Your task to perform on an android device: clear history in the chrome app Image 0: 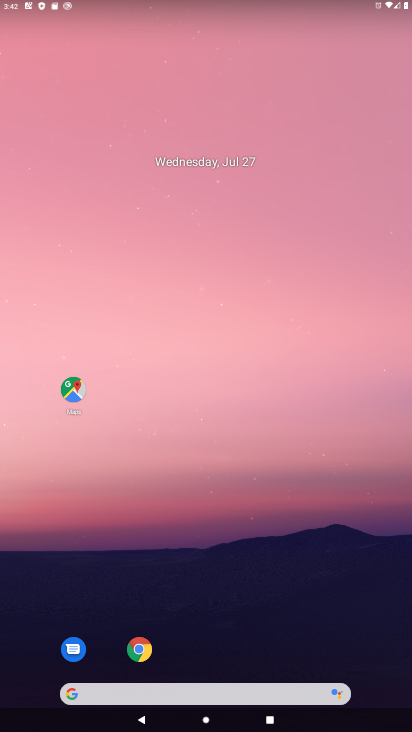
Step 0: click (138, 647)
Your task to perform on an android device: clear history in the chrome app Image 1: 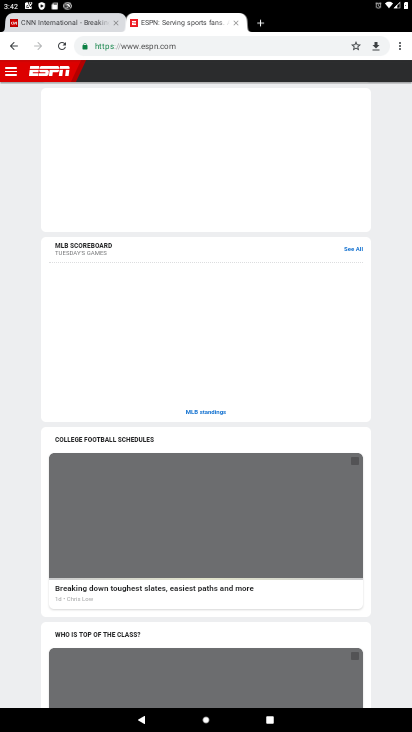
Step 1: click (403, 48)
Your task to perform on an android device: clear history in the chrome app Image 2: 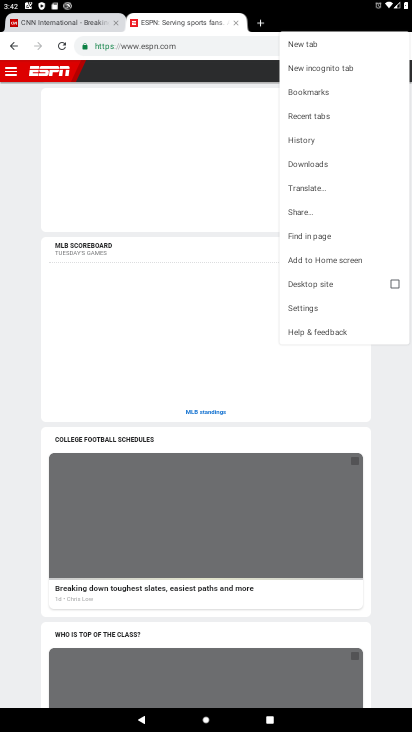
Step 2: click (300, 136)
Your task to perform on an android device: clear history in the chrome app Image 3: 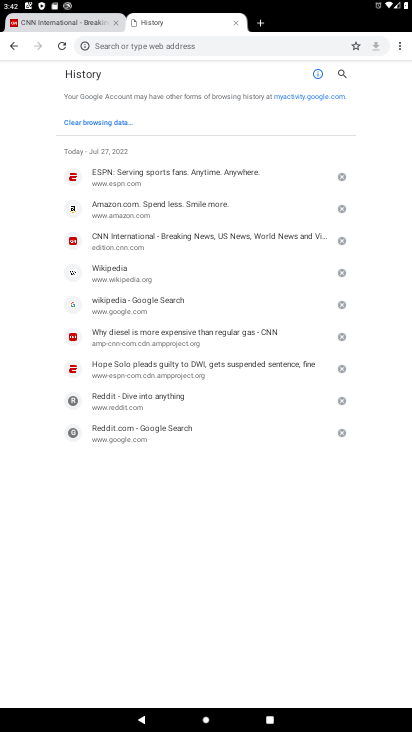
Step 3: click (90, 120)
Your task to perform on an android device: clear history in the chrome app Image 4: 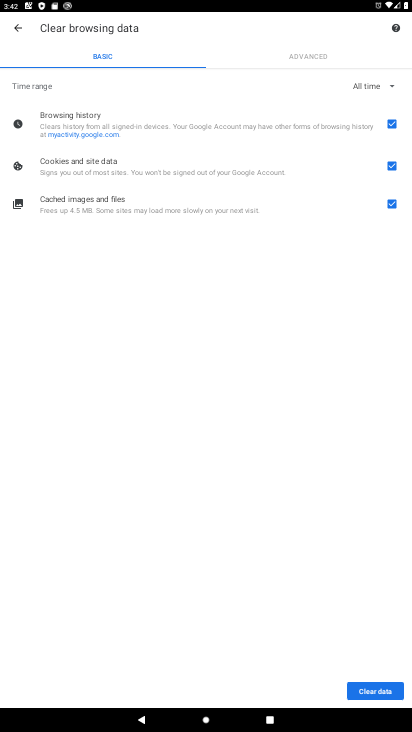
Step 4: click (392, 165)
Your task to perform on an android device: clear history in the chrome app Image 5: 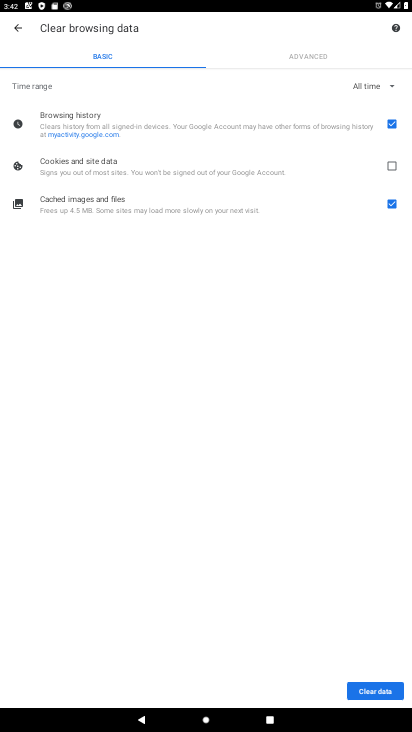
Step 5: click (390, 204)
Your task to perform on an android device: clear history in the chrome app Image 6: 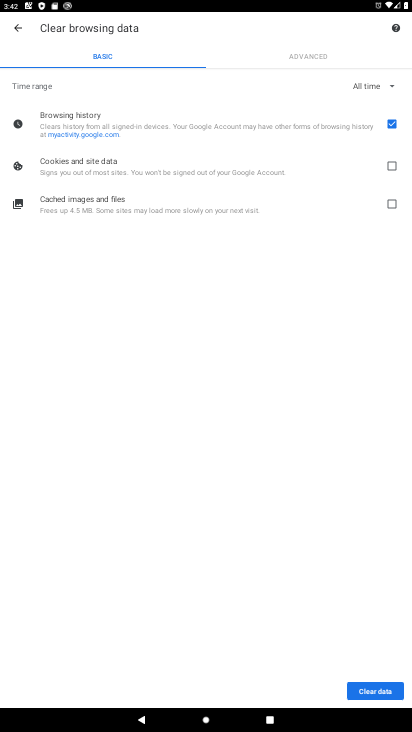
Step 6: click (376, 691)
Your task to perform on an android device: clear history in the chrome app Image 7: 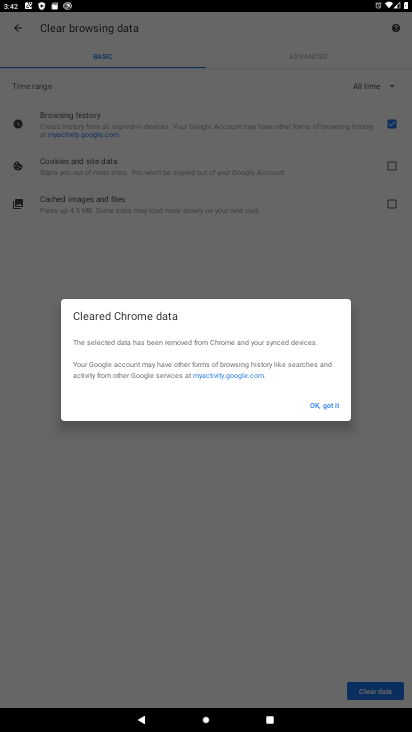
Step 7: click (323, 405)
Your task to perform on an android device: clear history in the chrome app Image 8: 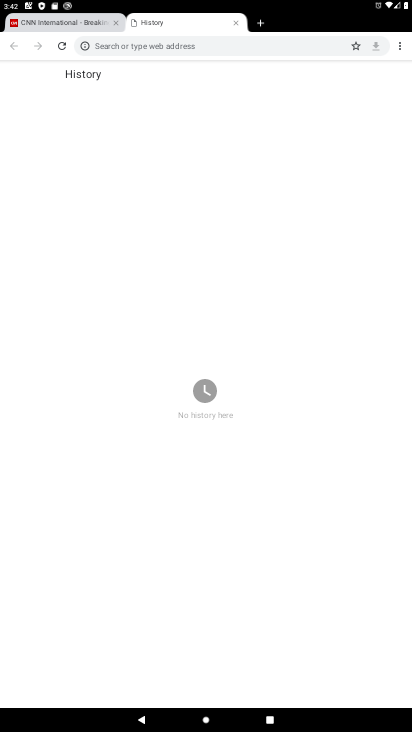
Step 8: task complete